Your task to perform on an android device: Go to Yahoo.com Image 0: 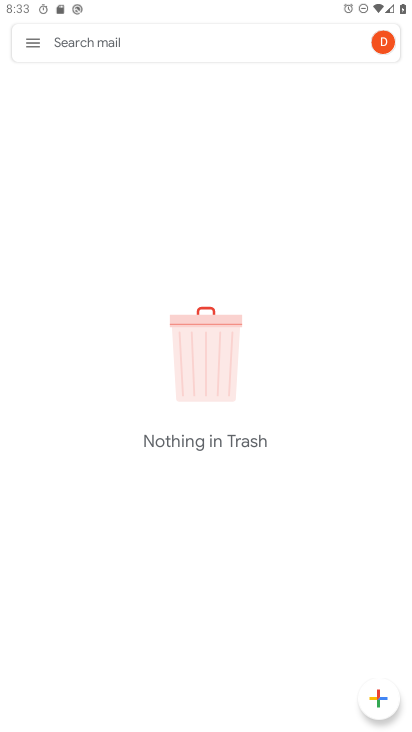
Step 0: press home button
Your task to perform on an android device: Go to Yahoo.com Image 1: 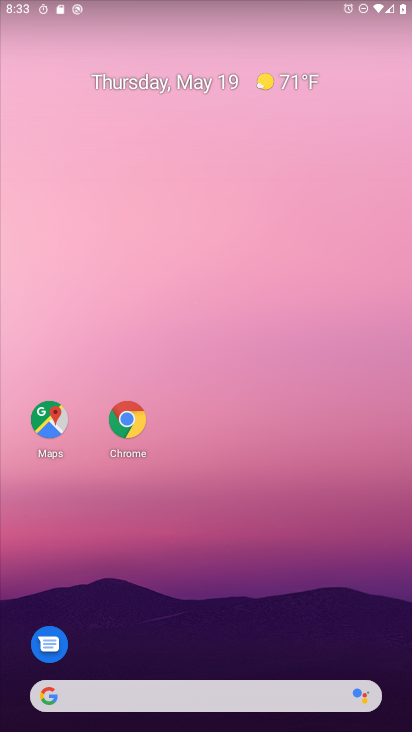
Step 1: click (124, 420)
Your task to perform on an android device: Go to Yahoo.com Image 2: 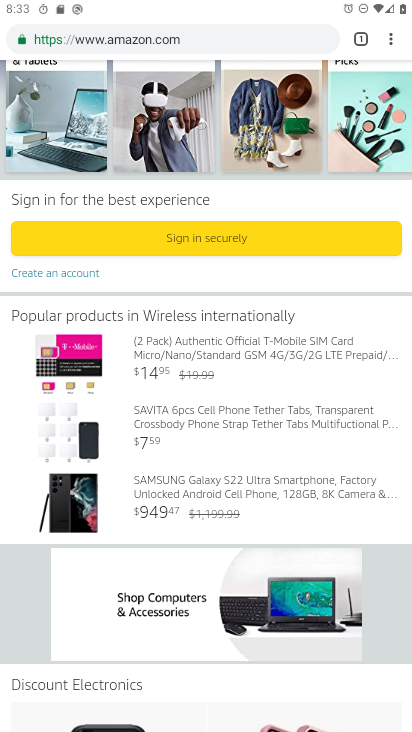
Step 2: click (360, 32)
Your task to perform on an android device: Go to Yahoo.com Image 3: 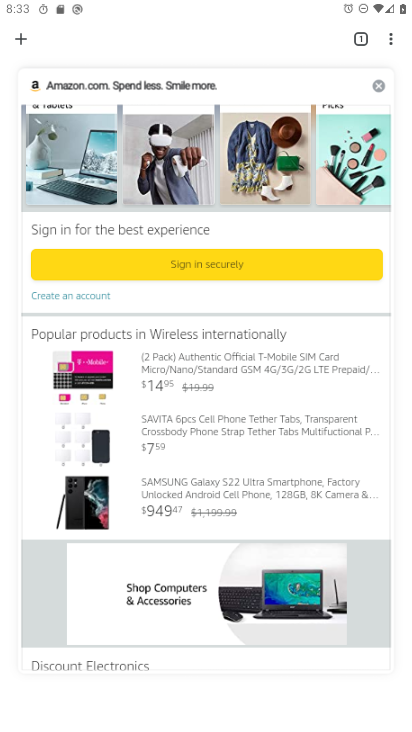
Step 3: click (388, 83)
Your task to perform on an android device: Go to Yahoo.com Image 4: 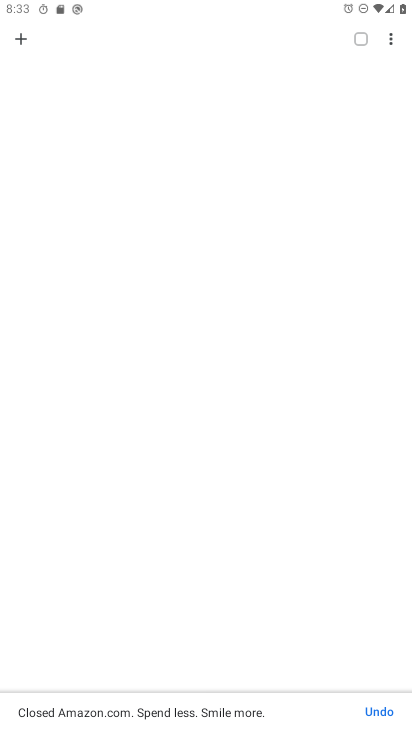
Step 4: click (20, 30)
Your task to perform on an android device: Go to Yahoo.com Image 5: 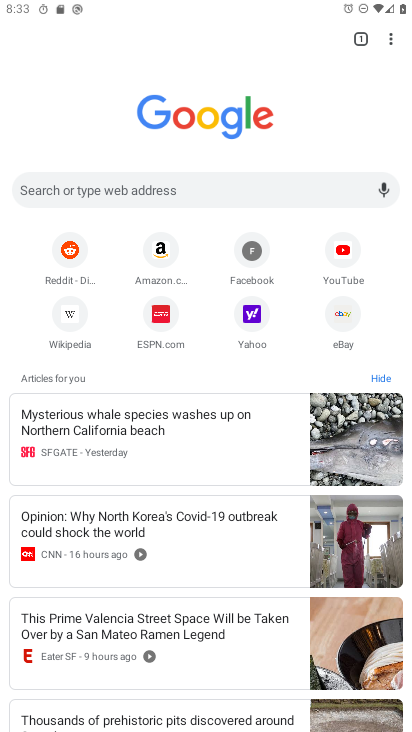
Step 5: click (256, 315)
Your task to perform on an android device: Go to Yahoo.com Image 6: 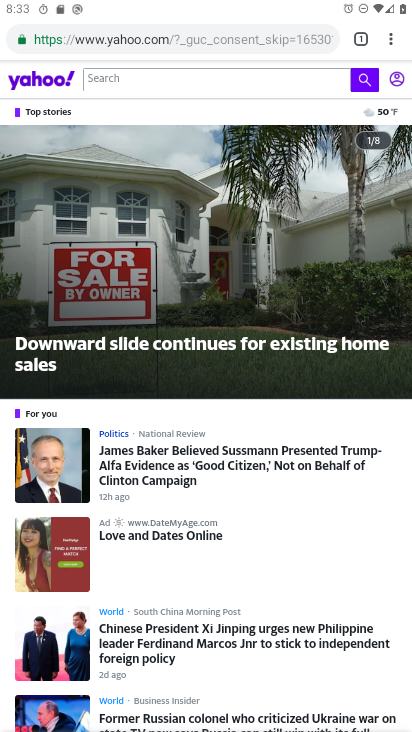
Step 6: task complete